Your task to perform on an android device: toggle translation in the chrome app Image 0: 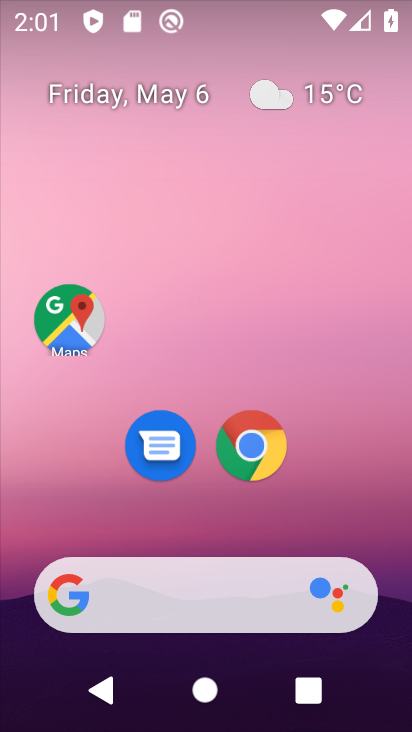
Step 0: drag from (290, 672) to (114, 18)
Your task to perform on an android device: toggle translation in the chrome app Image 1: 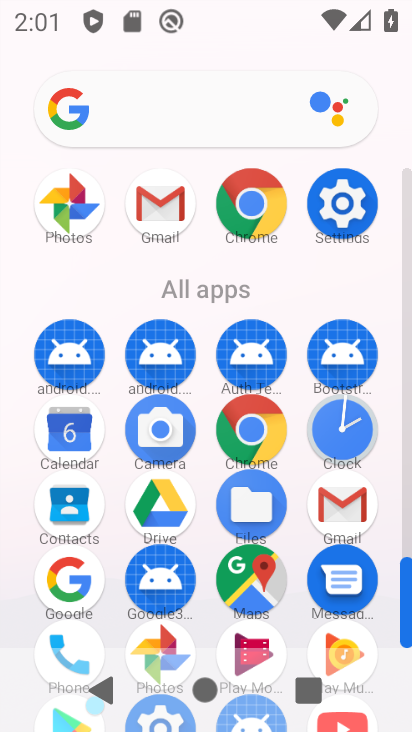
Step 1: click (261, 187)
Your task to perform on an android device: toggle translation in the chrome app Image 2: 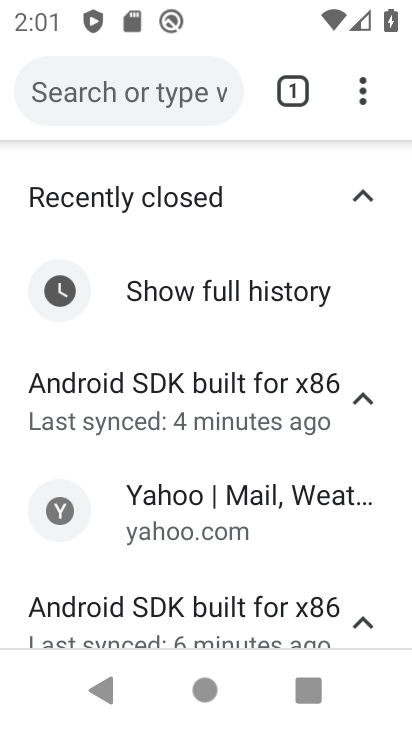
Step 2: click (360, 87)
Your task to perform on an android device: toggle translation in the chrome app Image 3: 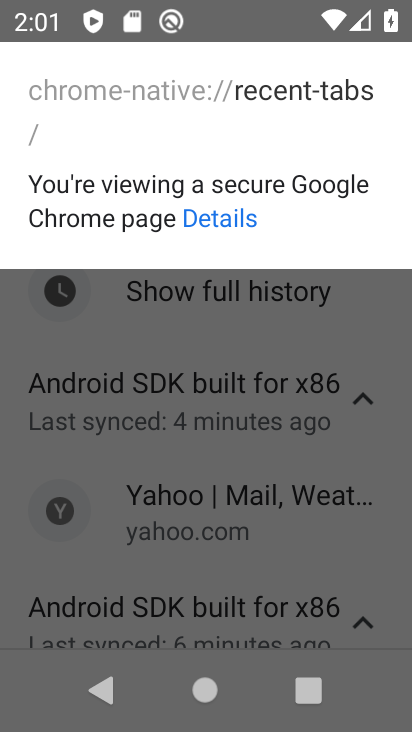
Step 3: click (331, 330)
Your task to perform on an android device: toggle translation in the chrome app Image 4: 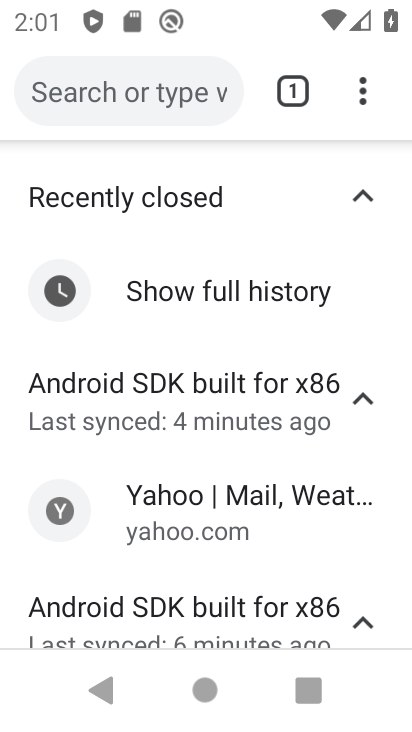
Step 4: click (330, 329)
Your task to perform on an android device: toggle translation in the chrome app Image 5: 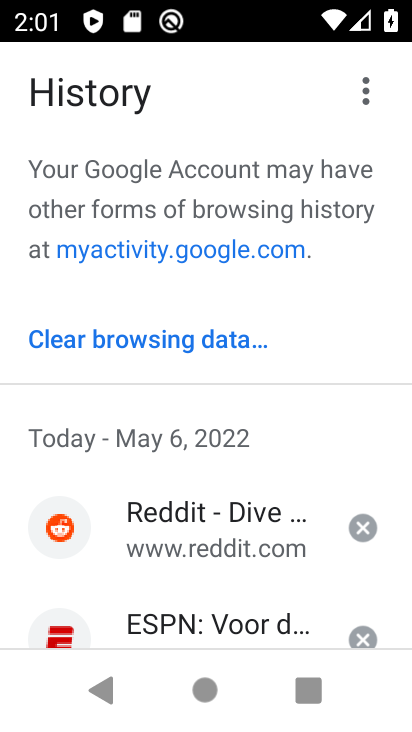
Step 5: press home button
Your task to perform on an android device: toggle translation in the chrome app Image 6: 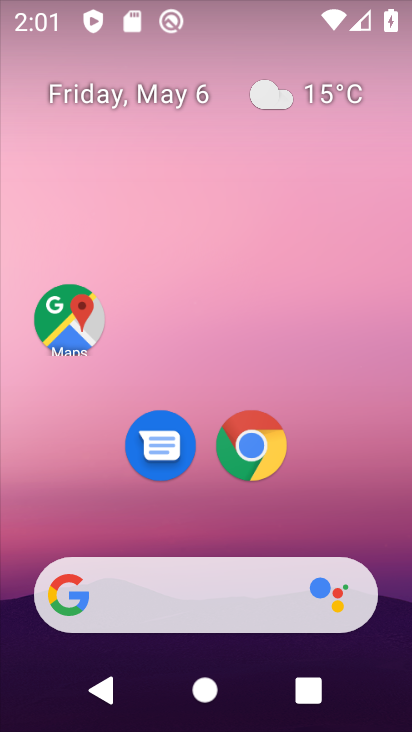
Step 6: drag from (363, 517) to (152, 46)
Your task to perform on an android device: toggle translation in the chrome app Image 7: 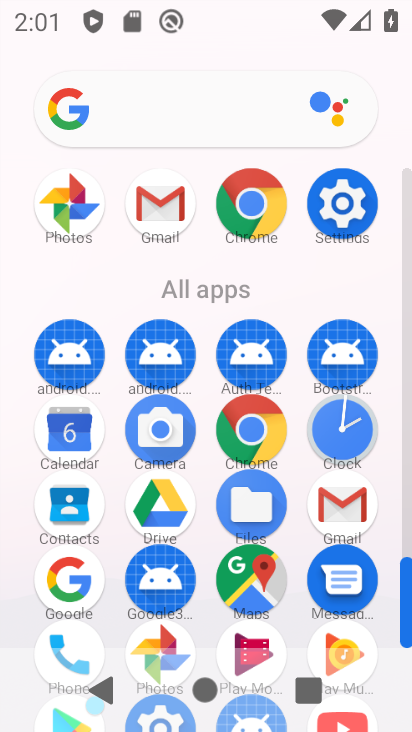
Step 7: click (240, 217)
Your task to perform on an android device: toggle translation in the chrome app Image 8: 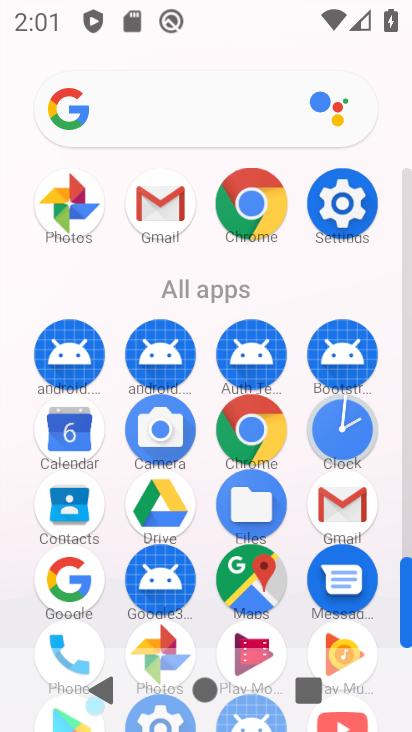
Step 8: click (249, 224)
Your task to perform on an android device: toggle translation in the chrome app Image 9: 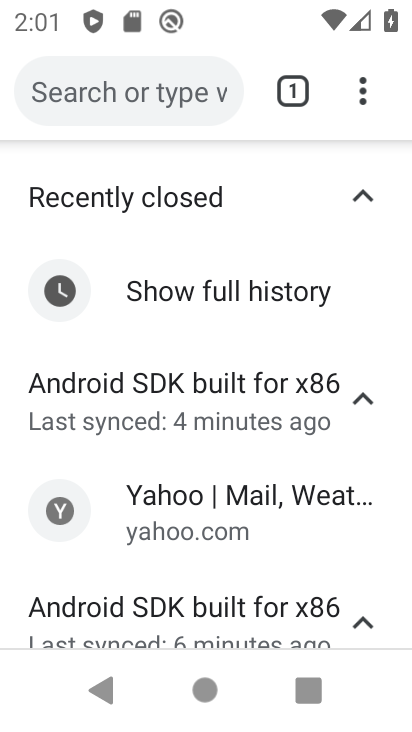
Step 9: drag from (361, 91) to (220, 149)
Your task to perform on an android device: toggle translation in the chrome app Image 10: 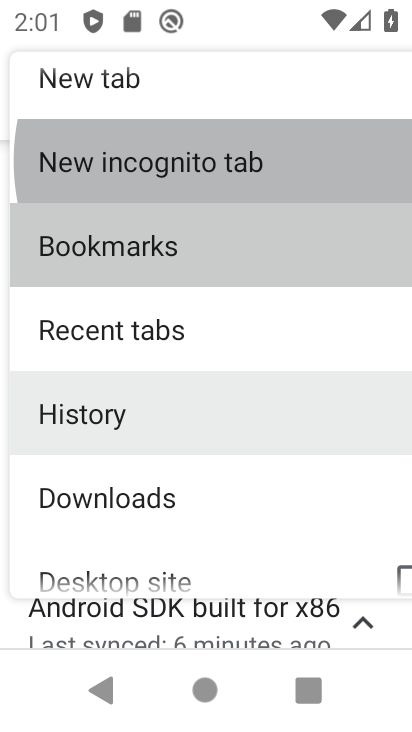
Step 10: drag from (221, 181) to (283, 266)
Your task to perform on an android device: toggle translation in the chrome app Image 11: 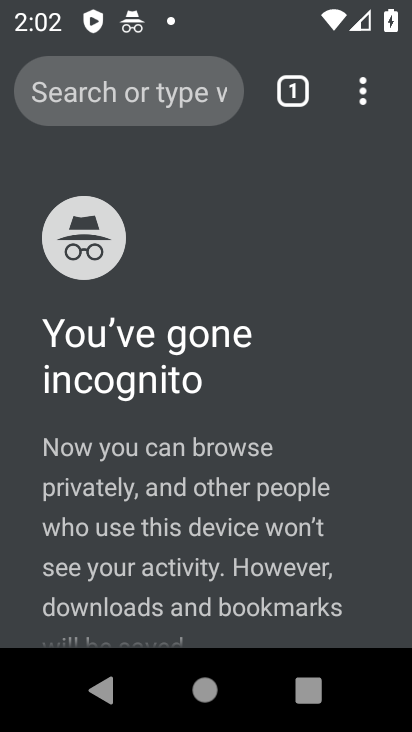
Step 11: press home button
Your task to perform on an android device: toggle translation in the chrome app Image 12: 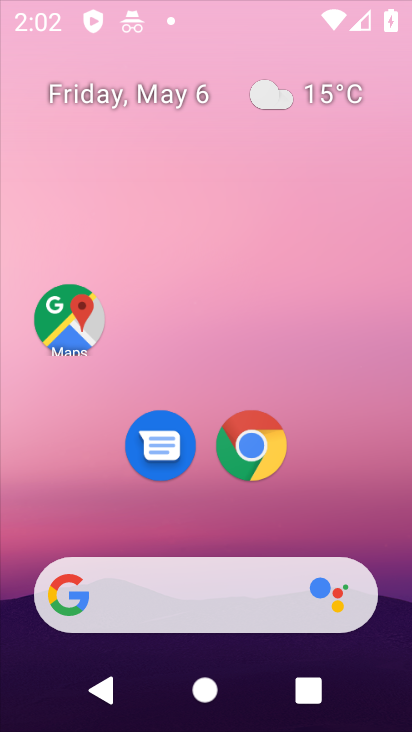
Step 12: press home button
Your task to perform on an android device: toggle translation in the chrome app Image 13: 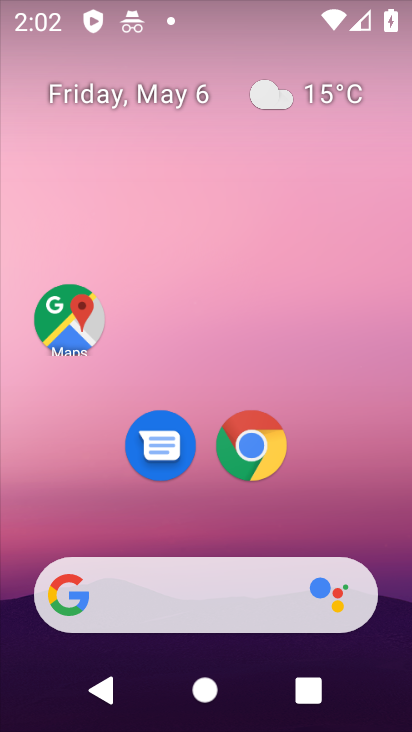
Step 13: drag from (377, 481) to (258, 35)
Your task to perform on an android device: toggle translation in the chrome app Image 14: 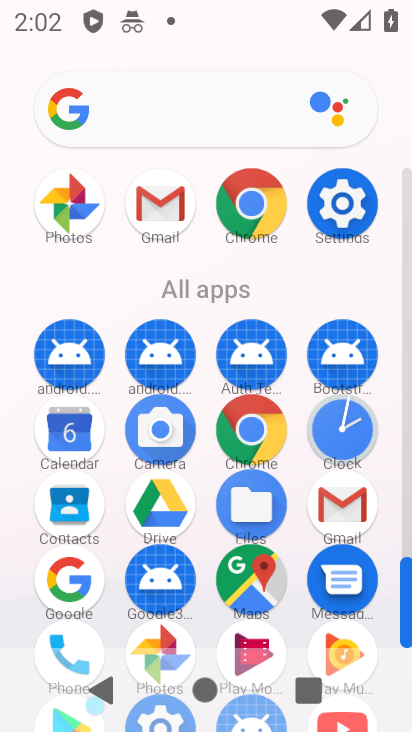
Step 14: click (334, 219)
Your task to perform on an android device: toggle translation in the chrome app Image 15: 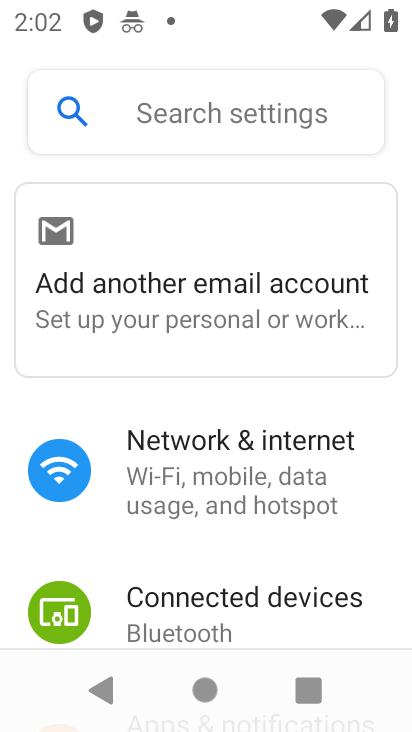
Step 15: drag from (280, 578) to (235, 235)
Your task to perform on an android device: toggle translation in the chrome app Image 16: 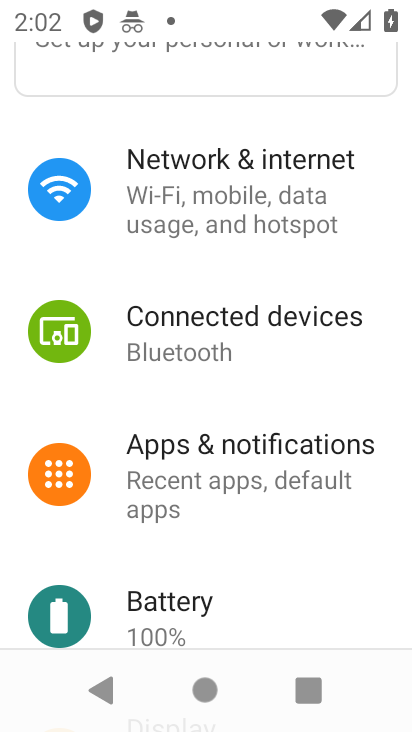
Step 16: press home button
Your task to perform on an android device: toggle translation in the chrome app Image 17: 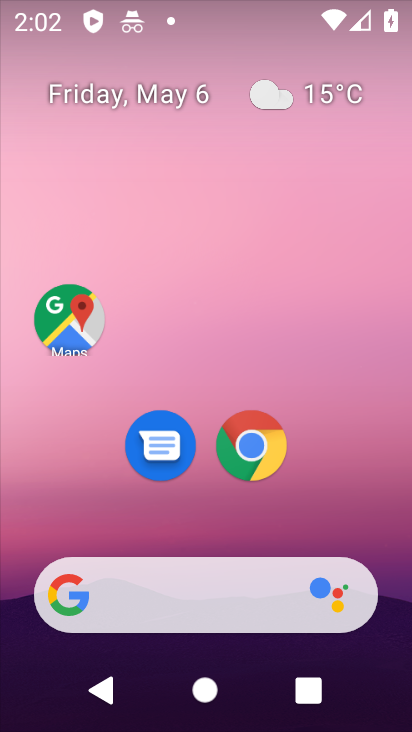
Step 17: drag from (359, 537) to (302, 102)
Your task to perform on an android device: toggle translation in the chrome app Image 18: 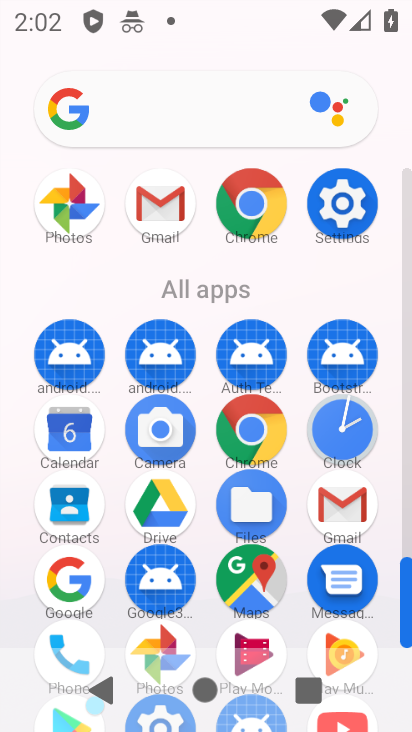
Step 18: click (250, 208)
Your task to perform on an android device: toggle translation in the chrome app Image 19: 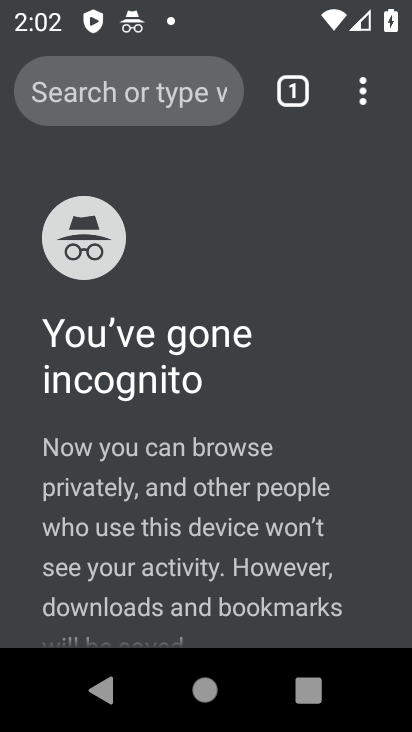
Step 19: click (369, 86)
Your task to perform on an android device: toggle translation in the chrome app Image 20: 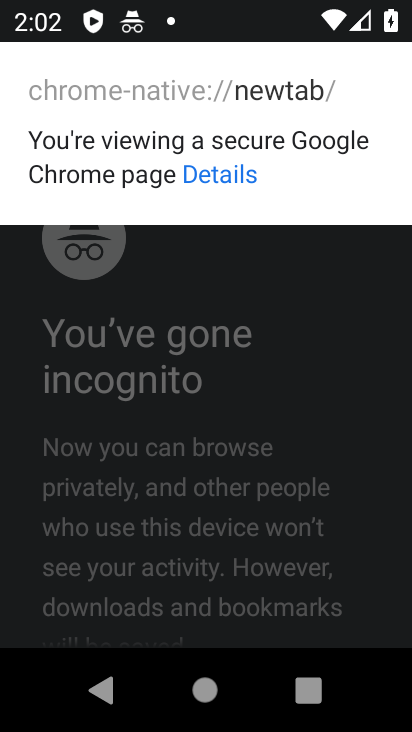
Step 20: click (264, 367)
Your task to perform on an android device: toggle translation in the chrome app Image 21: 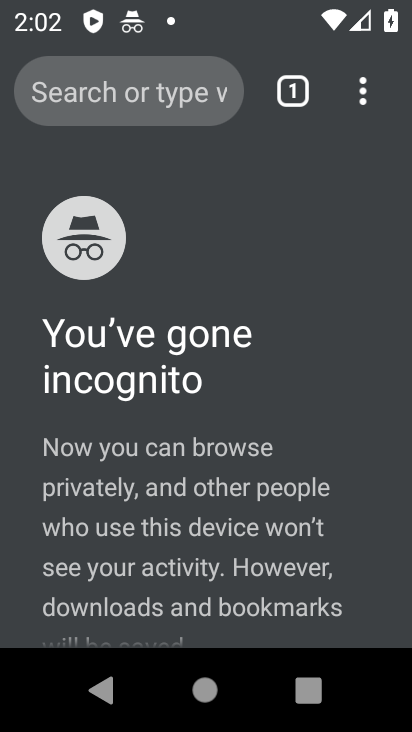
Step 21: drag from (360, 96) to (84, 470)
Your task to perform on an android device: toggle translation in the chrome app Image 22: 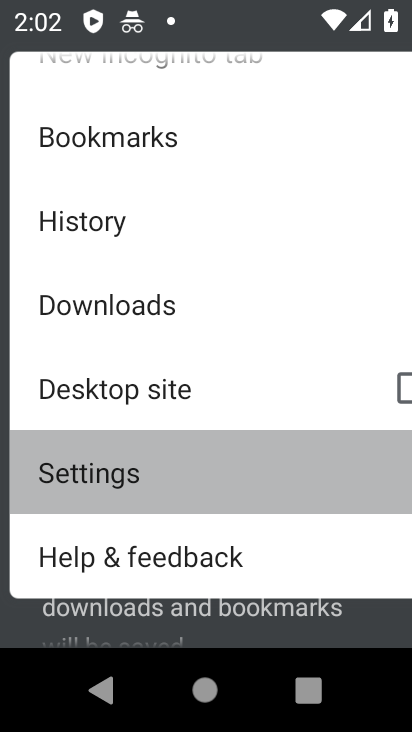
Step 22: click (84, 470)
Your task to perform on an android device: toggle translation in the chrome app Image 23: 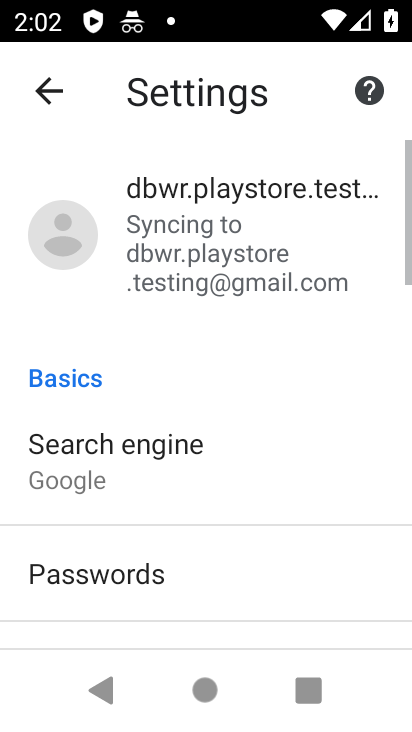
Step 23: drag from (189, 545) to (257, 97)
Your task to perform on an android device: toggle translation in the chrome app Image 24: 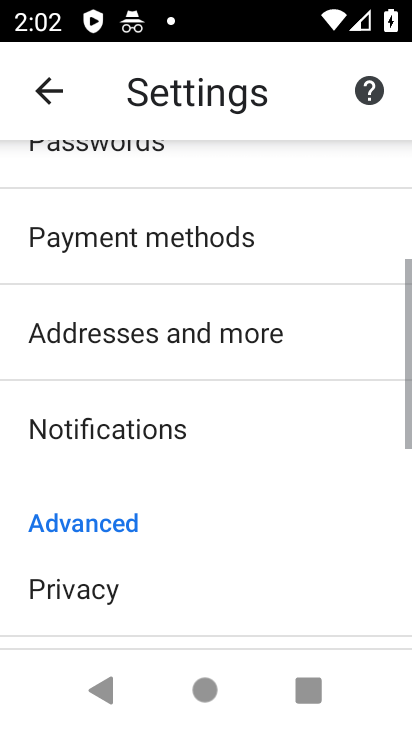
Step 24: drag from (250, 454) to (253, 74)
Your task to perform on an android device: toggle translation in the chrome app Image 25: 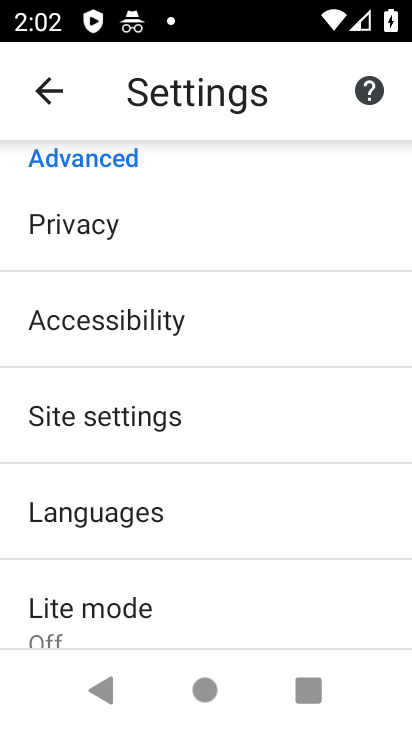
Step 25: click (120, 515)
Your task to perform on an android device: toggle translation in the chrome app Image 26: 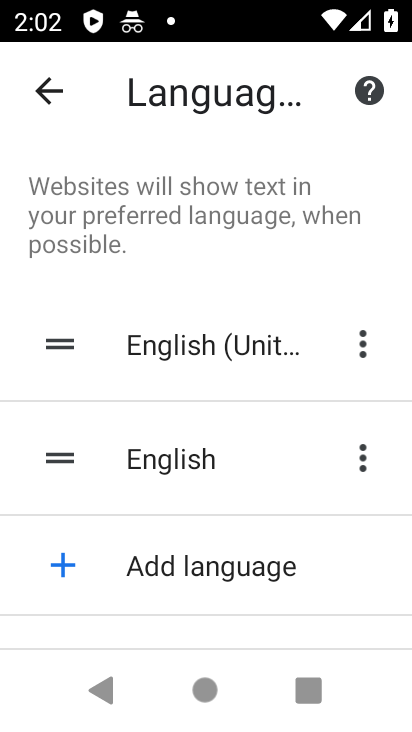
Step 26: drag from (221, 580) to (190, 113)
Your task to perform on an android device: toggle translation in the chrome app Image 27: 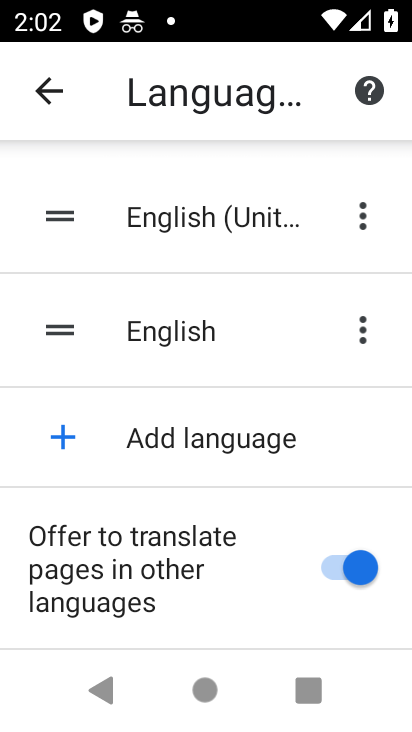
Step 27: click (341, 563)
Your task to perform on an android device: toggle translation in the chrome app Image 28: 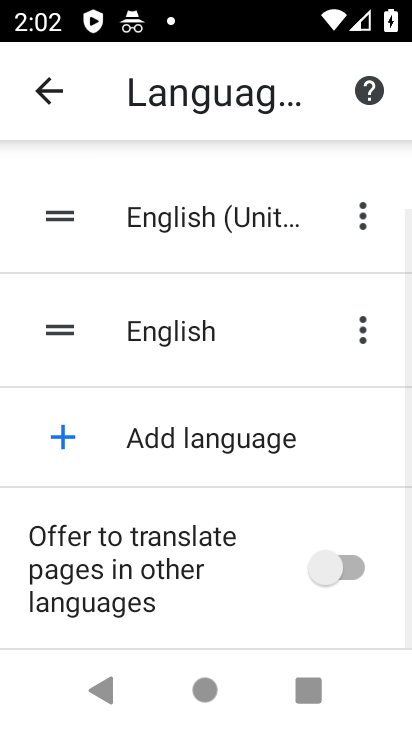
Step 28: click (352, 567)
Your task to perform on an android device: toggle translation in the chrome app Image 29: 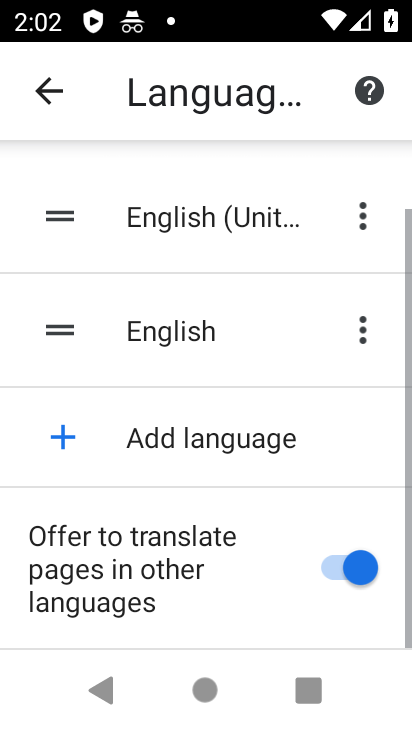
Step 29: click (361, 560)
Your task to perform on an android device: toggle translation in the chrome app Image 30: 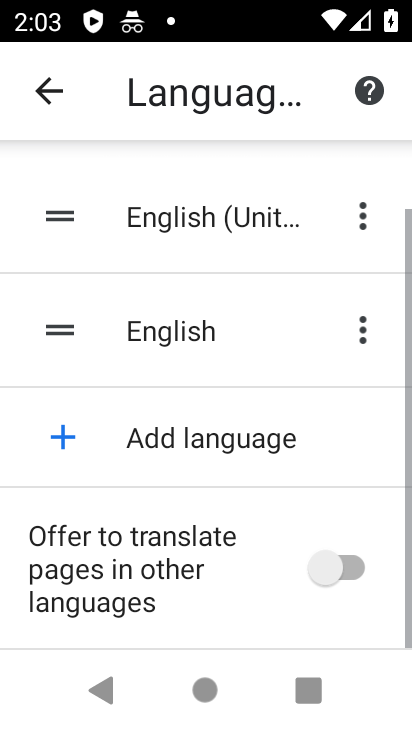
Step 30: task complete